Your task to perform on an android device: Go to eBay Image 0: 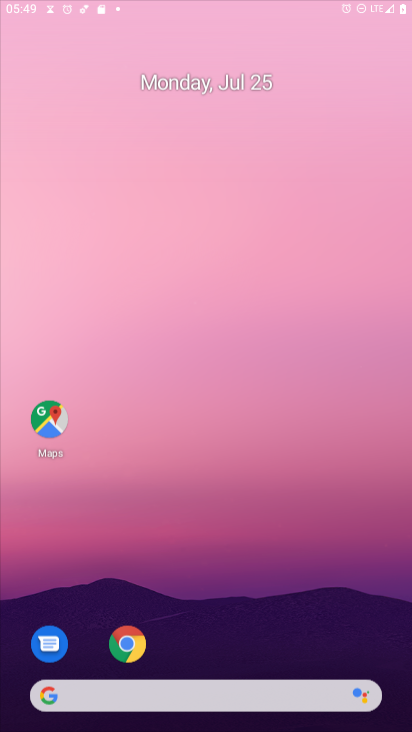
Step 0: press home button
Your task to perform on an android device: Go to eBay Image 1: 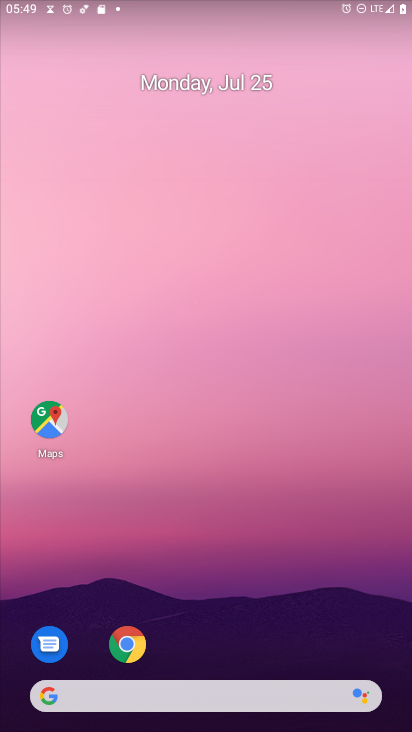
Step 1: click (46, 689)
Your task to perform on an android device: Go to eBay Image 2: 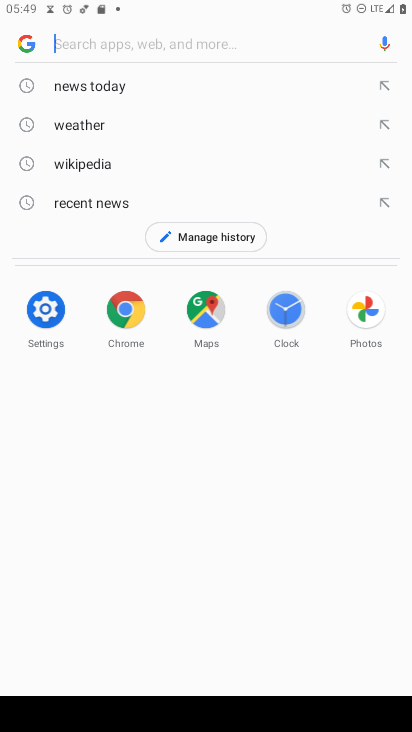
Step 2: type "eBay"
Your task to perform on an android device: Go to eBay Image 3: 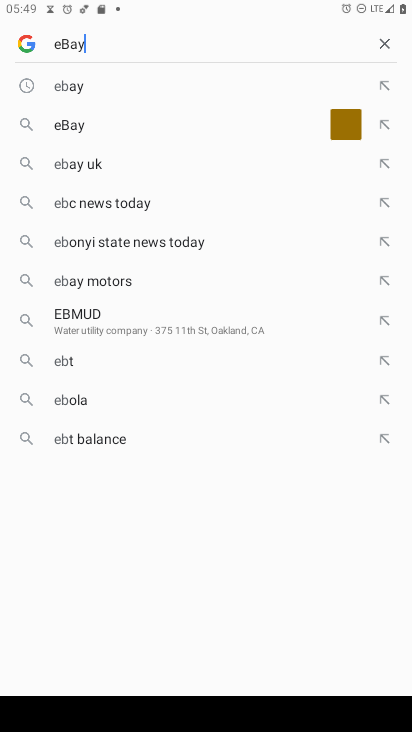
Step 3: press enter
Your task to perform on an android device: Go to eBay Image 4: 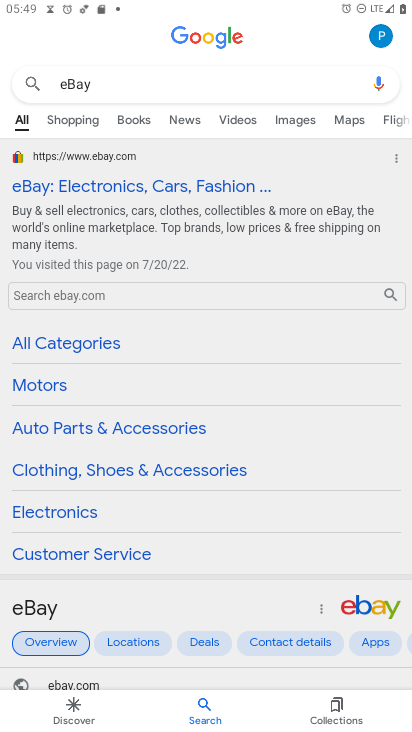
Step 4: click (85, 178)
Your task to perform on an android device: Go to eBay Image 5: 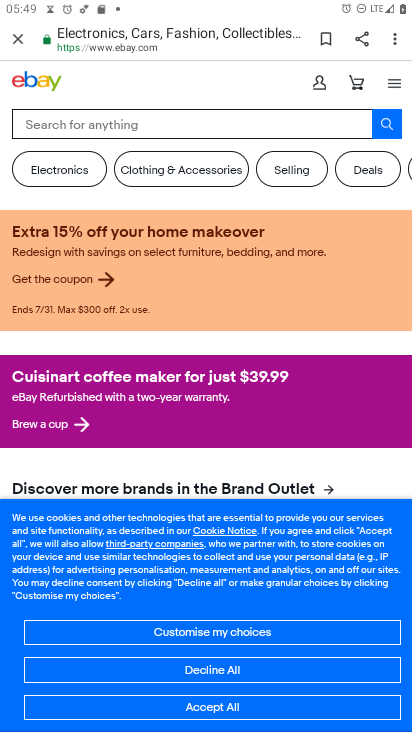
Step 5: task complete